Your task to perform on an android device: allow notifications from all sites in the chrome app Image 0: 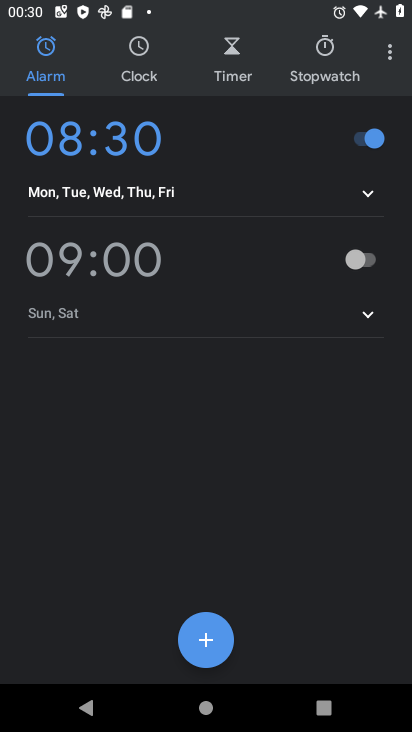
Step 0: press home button
Your task to perform on an android device: allow notifications from all sites in the chrome app Image 1: 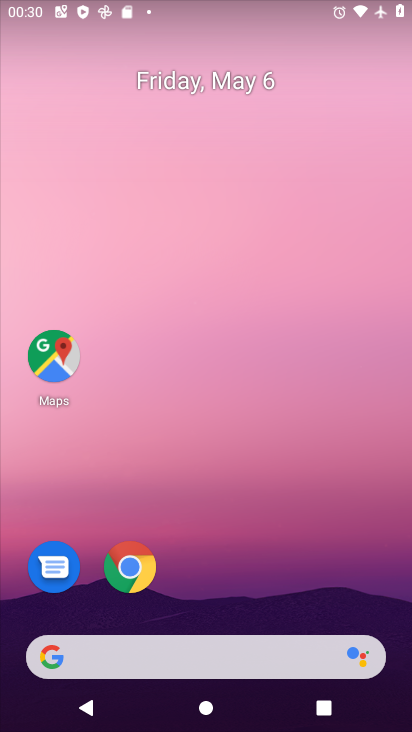
Step 1: click (145, 563)
Your task to perform on an android device: allow notifications from all sites in the chrome app Image 2: 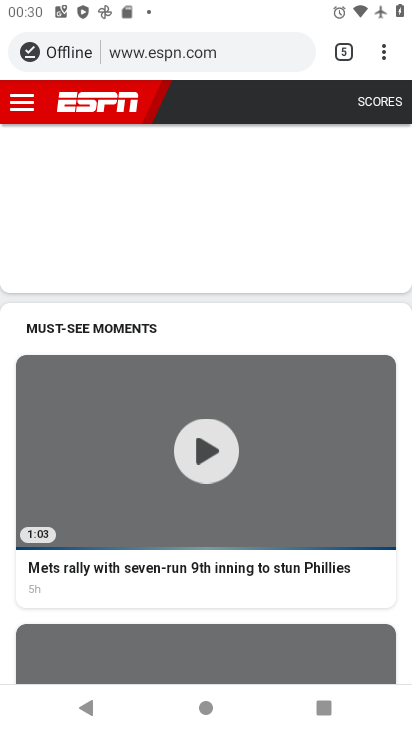
Step 2: click (388, 55)
Your task to perform on an android device: allow notifications from all sites in the chrome app Image 3: 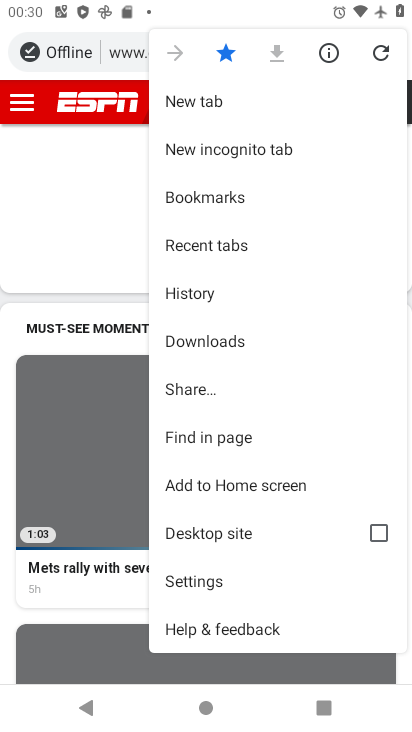
Step 3: click (229, 573)
Your task to perform on an android device: allow notifications from all sites in the chrome app Image 4: 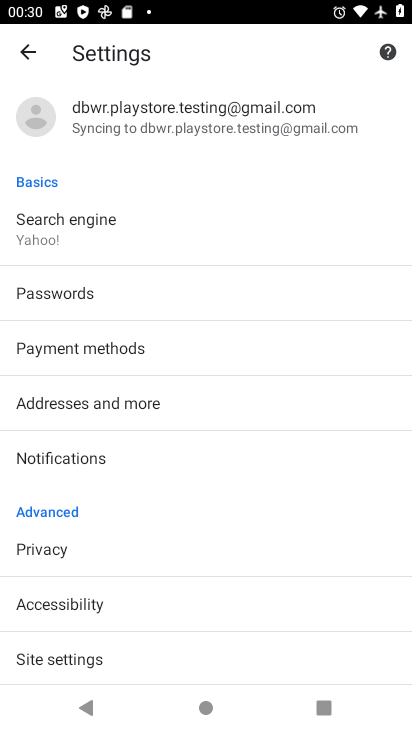
Step 4: drag from (154, 642) to (159, 521)
Your task to perform on an android device: allow notifications from all sites in the chrome app Image 5: 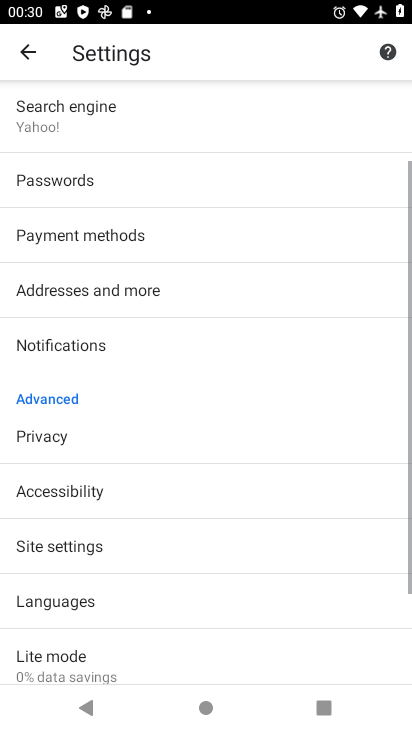
Step 5: click (129, 544)
Your task to perform on an android device: allow notifications from all sites in the chrome app Image 6: 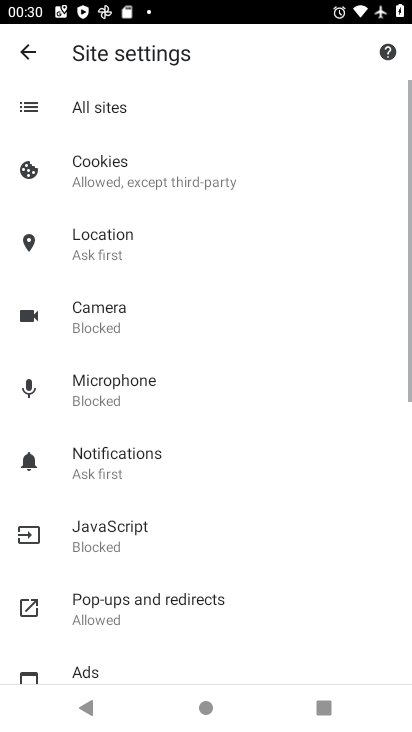
Step 6: click (140, 126)
Your task to perform on an android device: allow notifications from all sites in the chrome app Image 7: 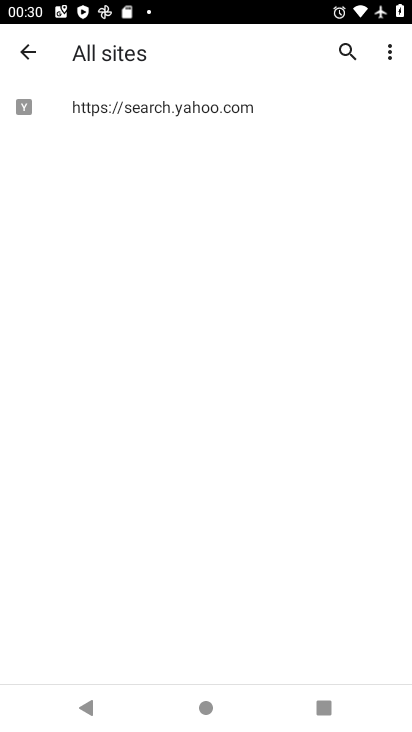
Step 7: click (85, 99)
Your task to perform on an android device: allow notifications from all sites in the chrome app Image 8: 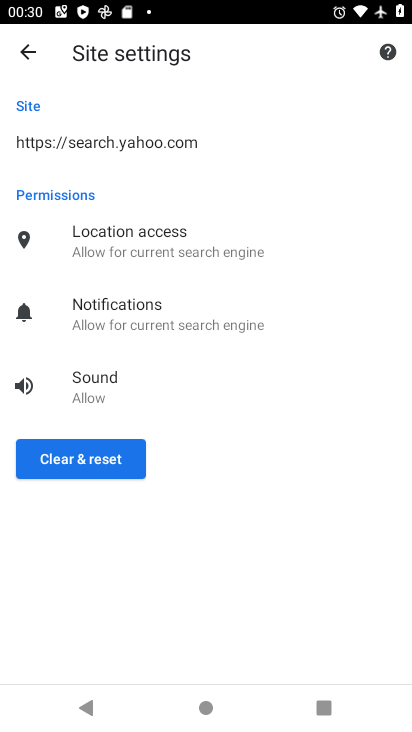
Step 8: click (209, 313)
Your task to perform on an android device: allow notifications from all sites in the chrome app Image 9: 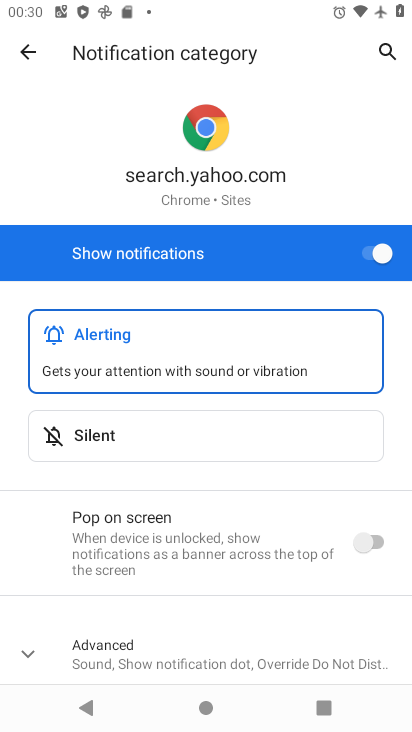
Step 9: drag from (145, 635) to (198, 384)
Your task to perform on an android device: allow notifications from all sites in the chrome app Image 10: 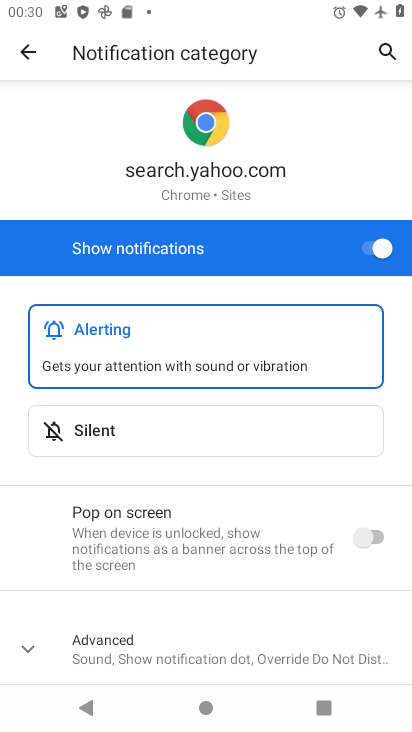
Step 10: click (69, 650)
Your task to perform on an android device: allow notifications from all sites in the chrome app Image 11: 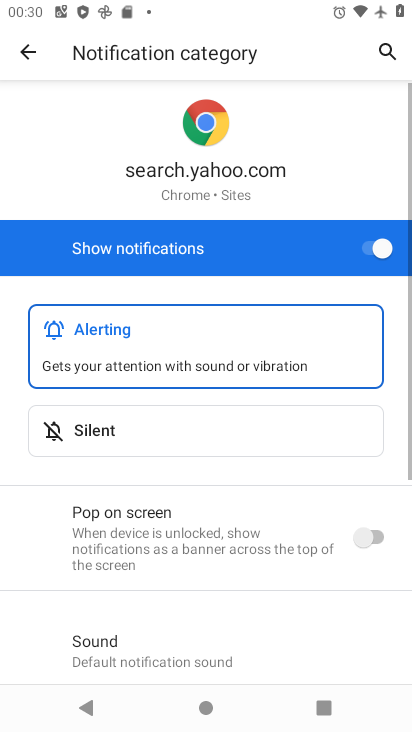
Step 11: task complete